Your task to perform on an android device: turn on bluetooth scan Image 0: 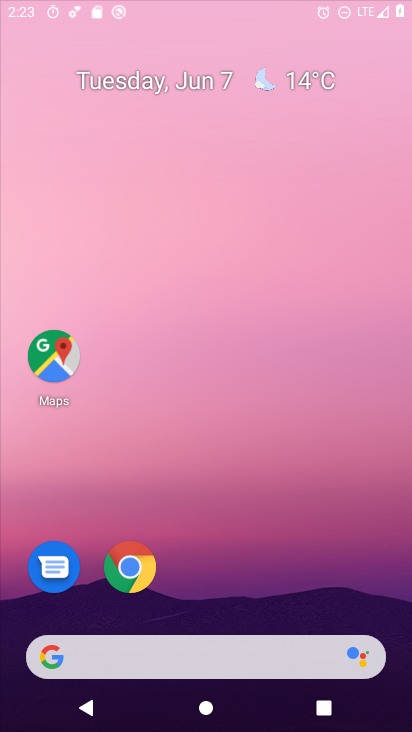
Step 0: drag from (364, 540) to (411, 33)
Your task to perform on an android device: turn on bluetooth scan Image 1: 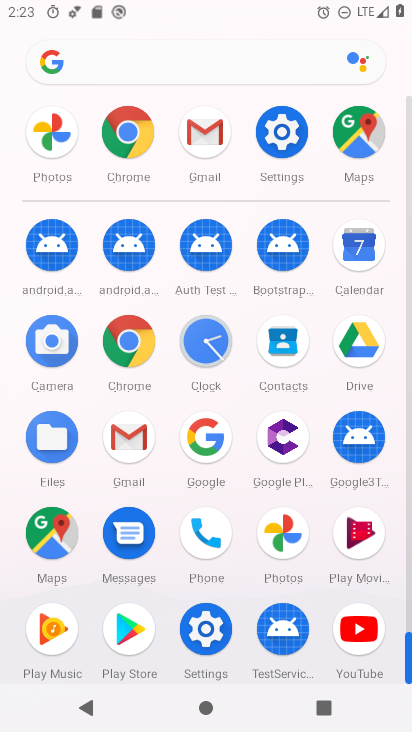
Step 1: click (282, 140)
Your task to perform on an android device: turn on bluetooth scan Image 2: 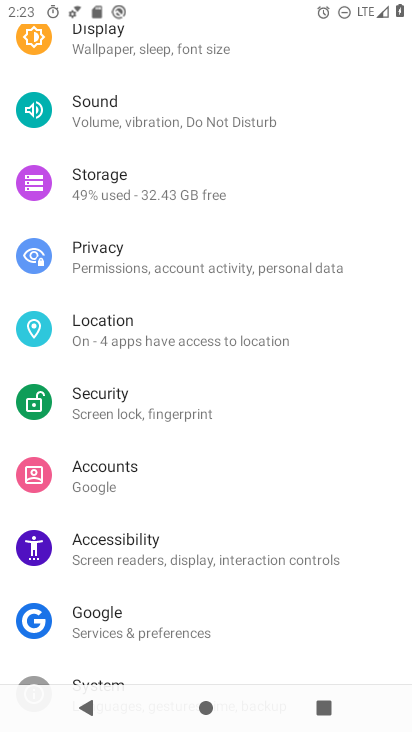
Step 2: click (108, 312)
Your task to perform on an android device: turn on bluetooth scan Image 3: 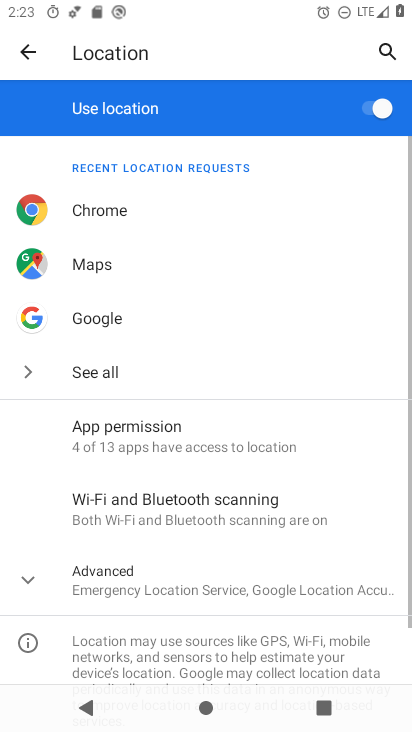
Step 3: click (122, 505)
Your task to perform on an android device: turn on bluetooth scan Image 4: 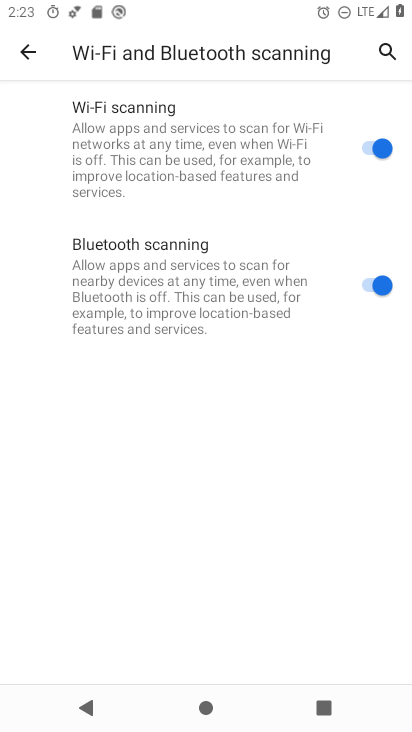
Step 4: task complete